Your task to perform on an android device: What is the news today? Image 0: 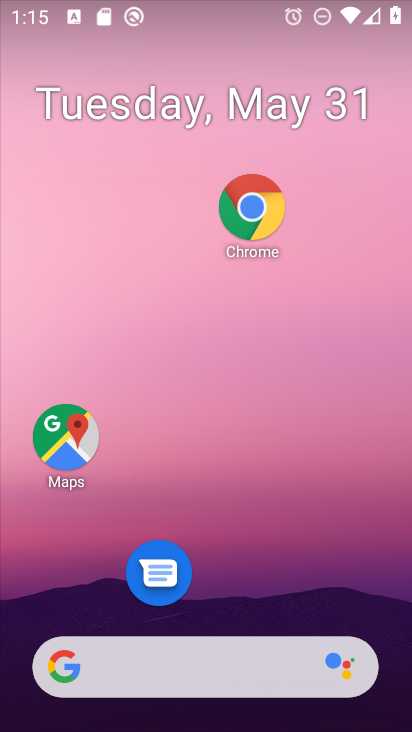
Step 0: drag from (289, 611) to (223, 52)
Your task to perform on an android device: What is the news today? Image 1: 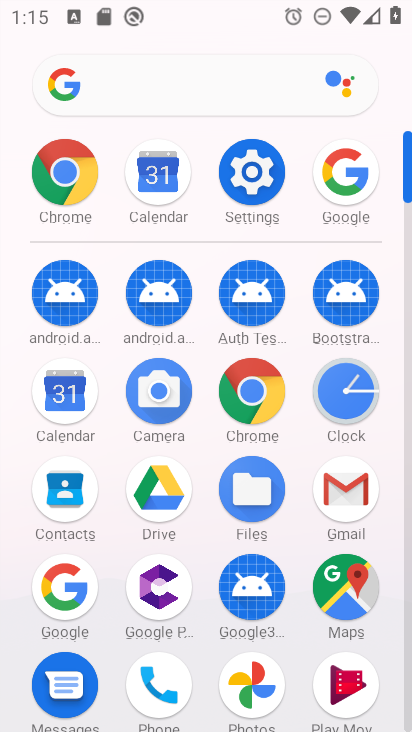
Step 1: click (76, 573)
Your task to perform on an android device: What is the news today? Image 2: 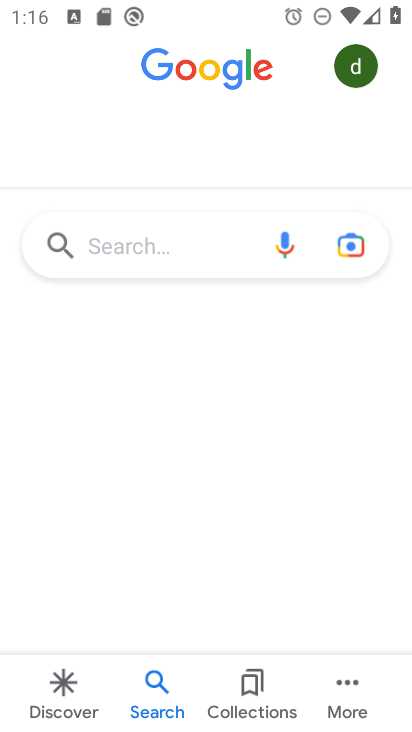
Step 2: click (158, 247)
Your task to perform on an android device: What is the news today? Image 3: 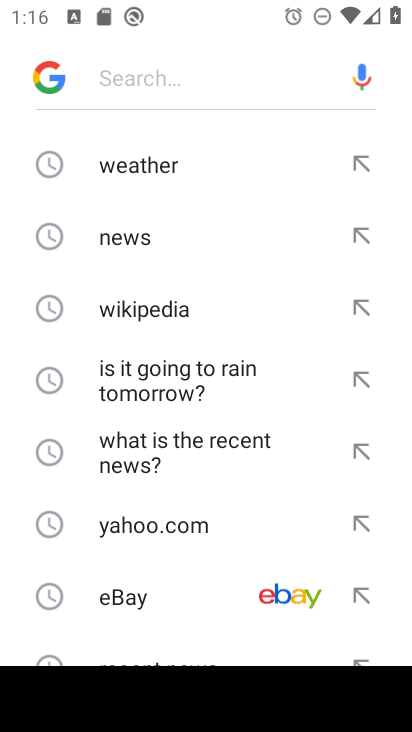
Step 3: click (175, 237)
Your task to perform on an android device: What is the news today? Image 4: 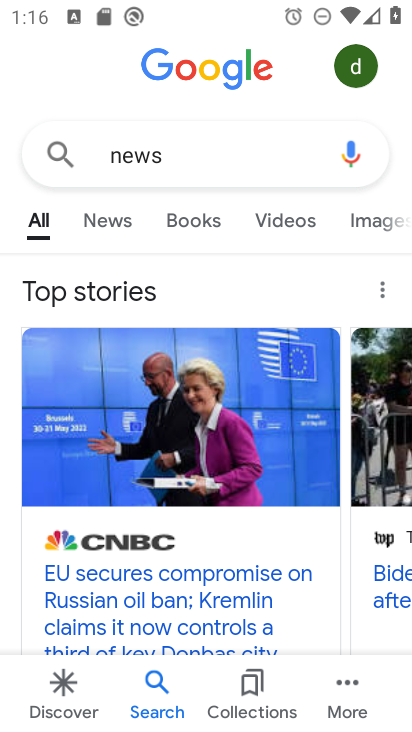
Step 4: task complete